Your task to perform on an android device: toggle javascript in the chrome app Image 0: 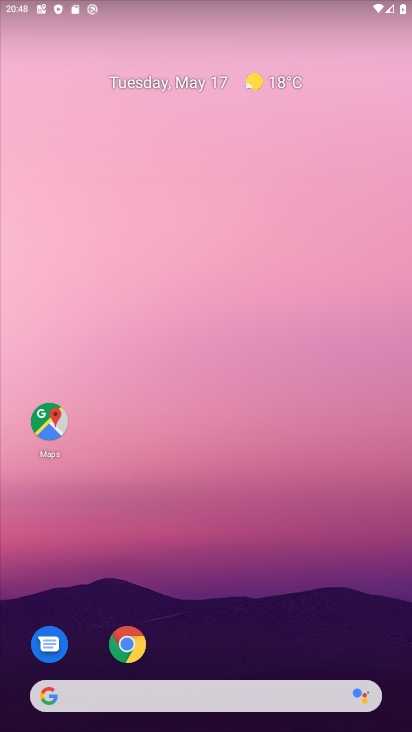
Step 0: click (135, 644)
Your task to perform on an android device: toggle javascript in the chrome app Image 1: 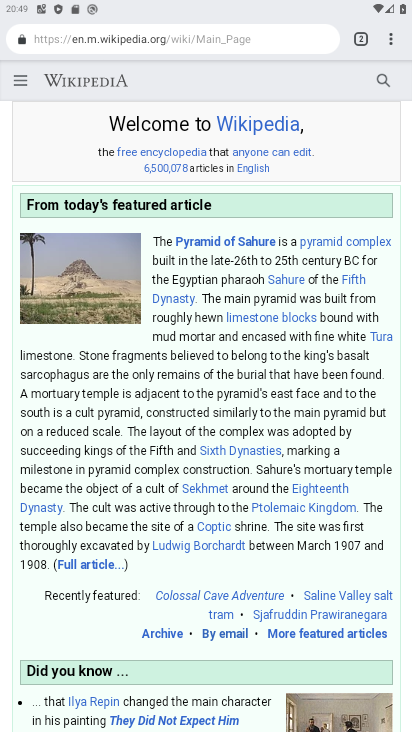
Step 1: drag from (384, 30) to (254, 472)
Your task to perform on an android device: toggle javascript in the chrome app Image 2: 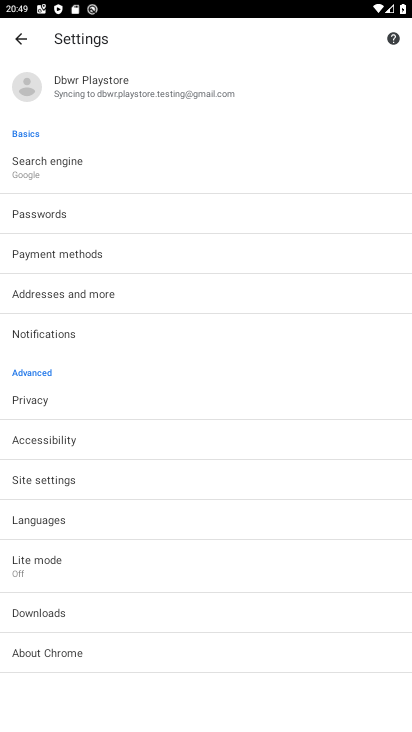
Step 2: click (49, 478)
Your task to perform on an android device: toggle javascript in the chrome app Image 3: 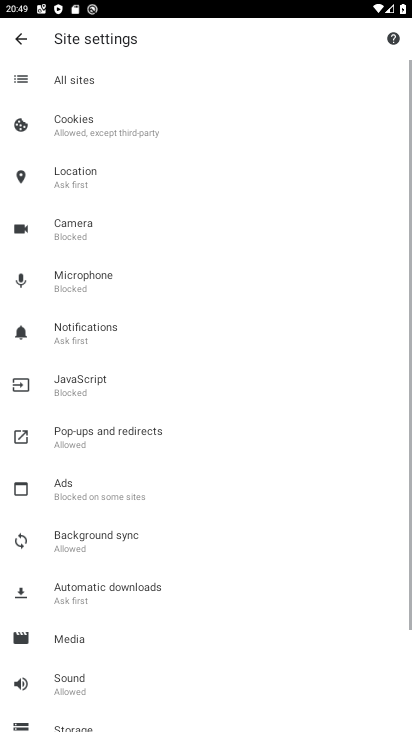
Step 3: click (84, 382)
Your task to perform on an android device: toggle javascript in the chrome app Image 4: 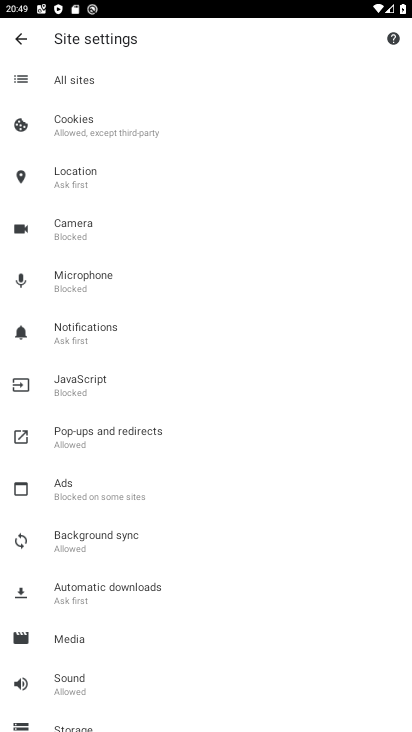
Step 4: click (106, 381)
Your task to perform on an android device: toggle javascript in the chrome app Image 5: 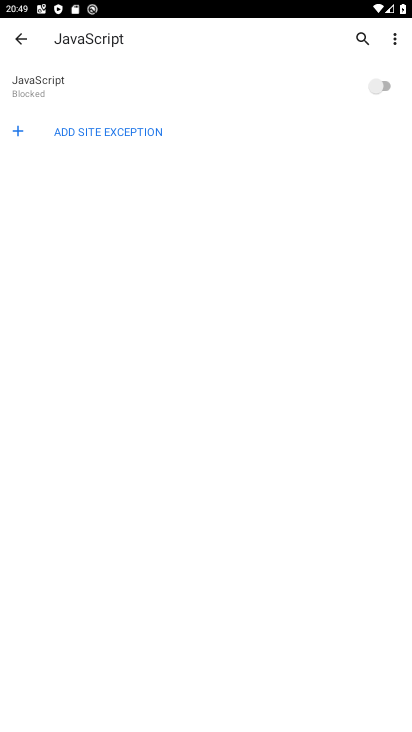
Step 5: click (379, 87)
Your task to perform on an android device: toggle javascript in the chrome app Image 6: 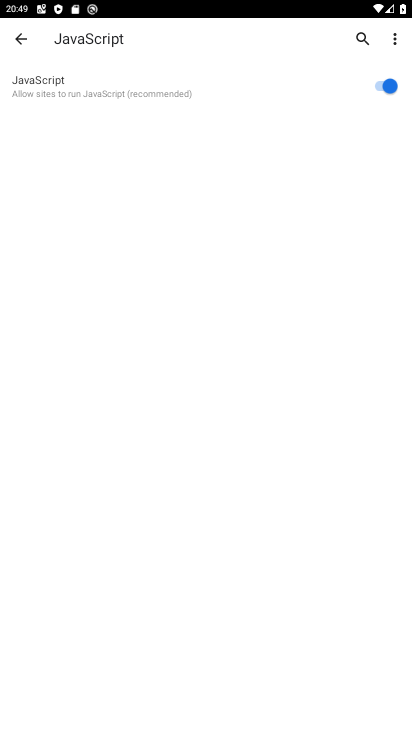
Step 6: task complete